Your task to perform on an android device: turn off improve location accuracy Image 0: 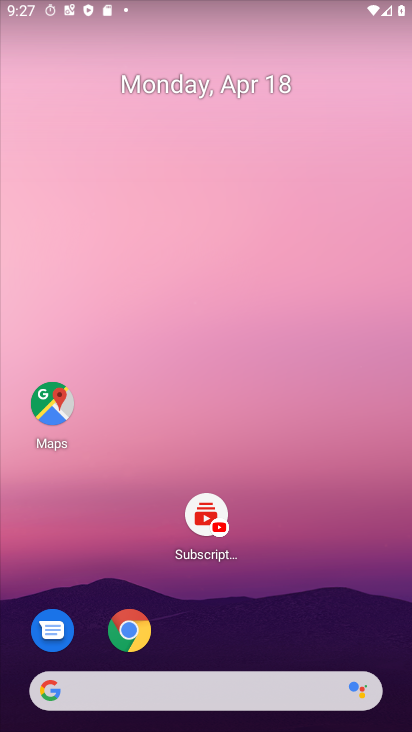
Step 0: drag from (218, 482) to (290, 170)
Your task to perform on an android device: turn off improve location accuracy Image 1: 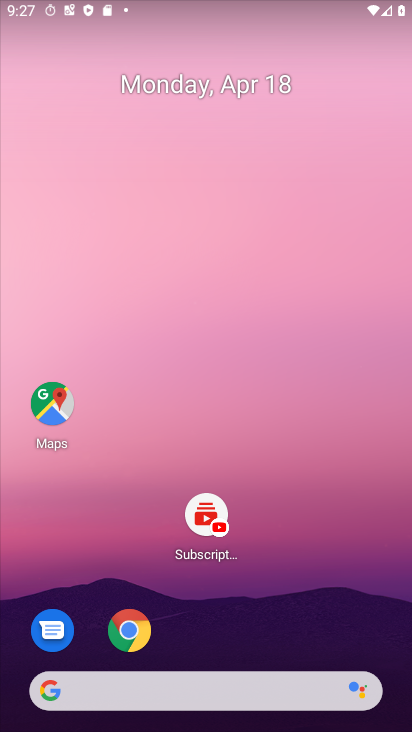
Step 1: drag from (304, 404) to (410, 95)
Your task to perform on an android device: turn off improve location accuracy Image 2: 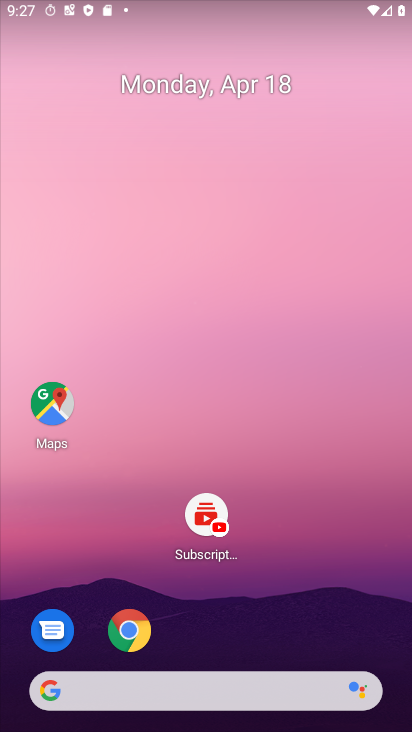
Step 2: drag from (221, 663) to (293, 141)
Your task to perform on an android device: turn off improve location accuracy Image 3: 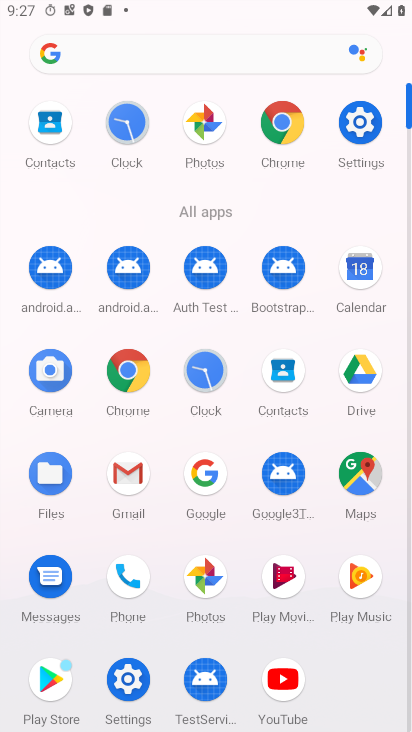
Step 3: click (124, 679)
Your task to perform on an android device: turn off improve location accuracy Image 4: 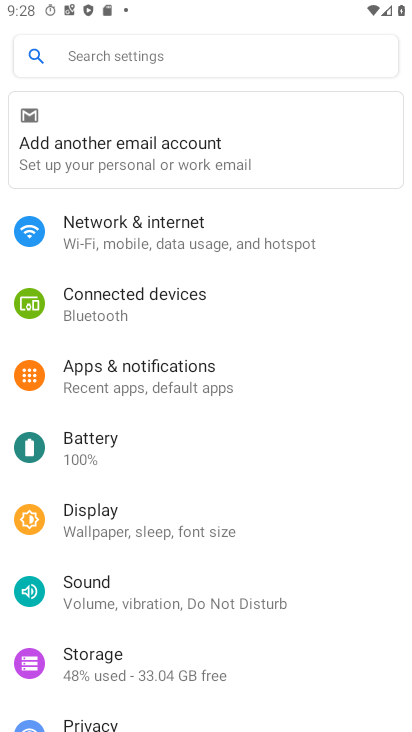
Step 4: drag from (111, 639) to (197, 295)
Your task to perform on an android device: turn off improve location accuracy Image 5: 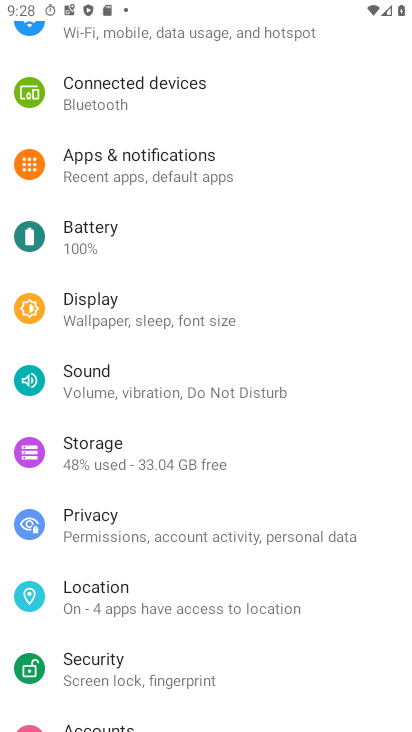
Step 5: click (139, 599)
Your task to perform on an android device: turn off improve location accuracy Image 6: 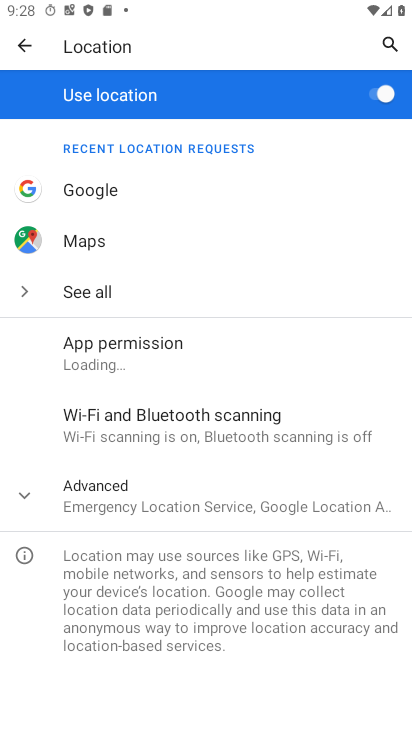
Step 6: click (32, 489)
Your task to perform on an android device: turn off improve location accuracy Image 7: 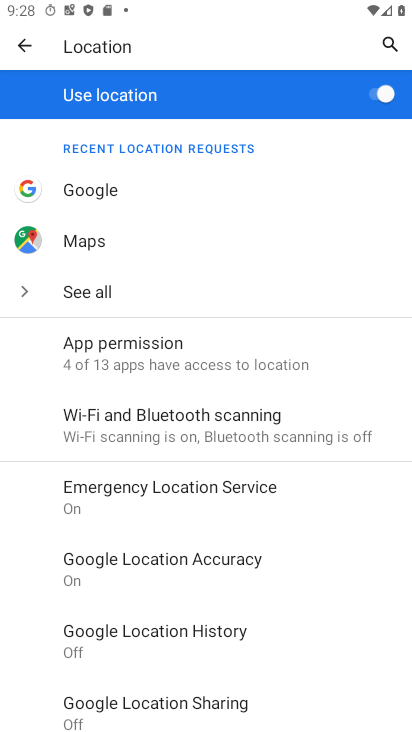
Step 7: click (195, 575)
Your task to perform on an android device: turn off improve location accuracy Image 8: 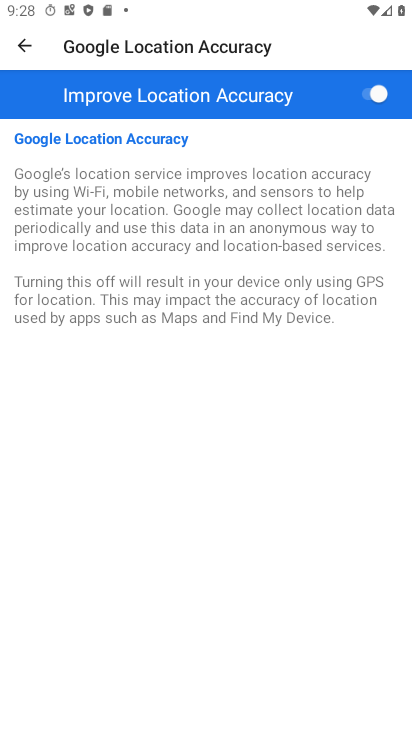
Step 8: click (370, 90)
Your task to perform on an android device: turn off improve location accuracy Image 9: 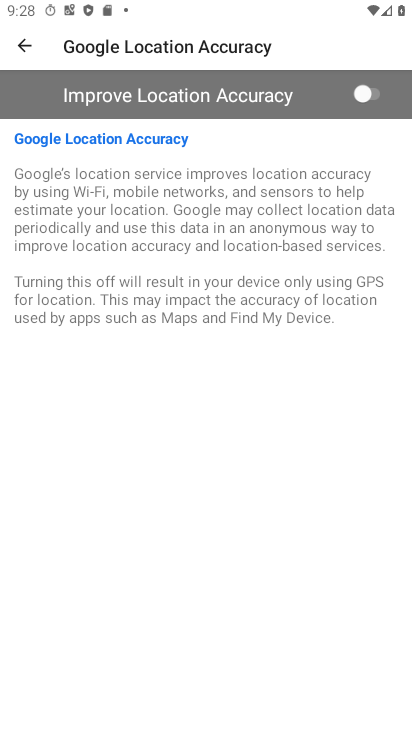
Step 9: task complete